Your task to perform on an android device: Search for "usb-c to usb-a" on newegg.com, select the first entry, add it to the cart, then select checkout. Image 0: 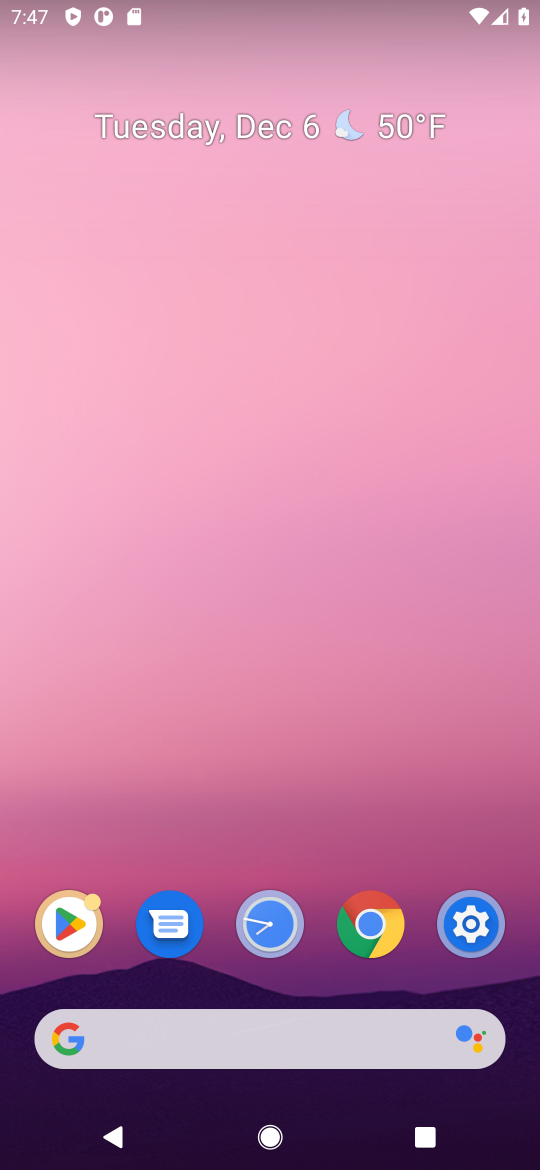
Step 0: click (253, 1060)
Your task to perform on an android device: Search for "usb-c to usb-a" on newegg.com, select the first entry, add it to the cart, then select checkout. Image 1: 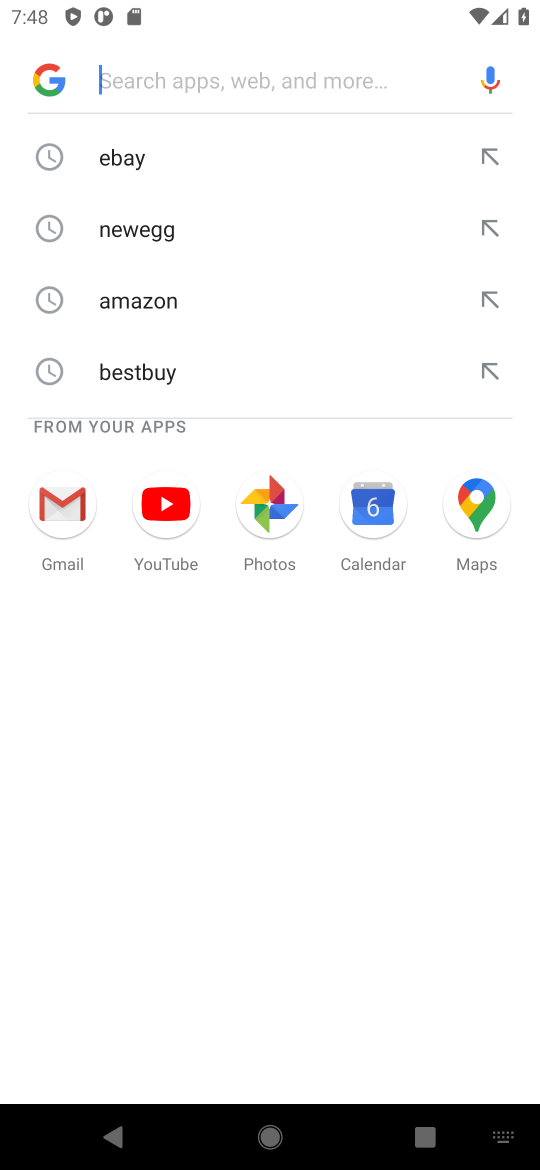
Step 1: type "usb-c t"
Your task to perform on an android device: Search for "usb-c to usb-a" on newegg.com, select the first entry, add it to the cart, then select checkout. Image 2: 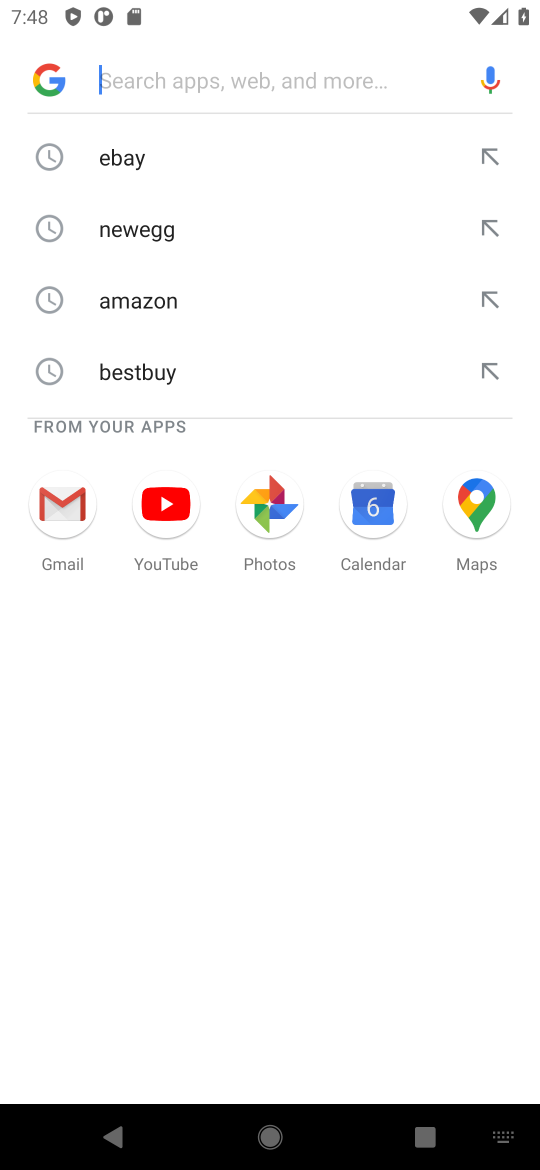
Step 2: click (109, 254)
Your task to perform on an android device: Search for "usb-c to usb-a" on newegg.com, select the first entry, add it to the cart, then select checkout. Image 3: 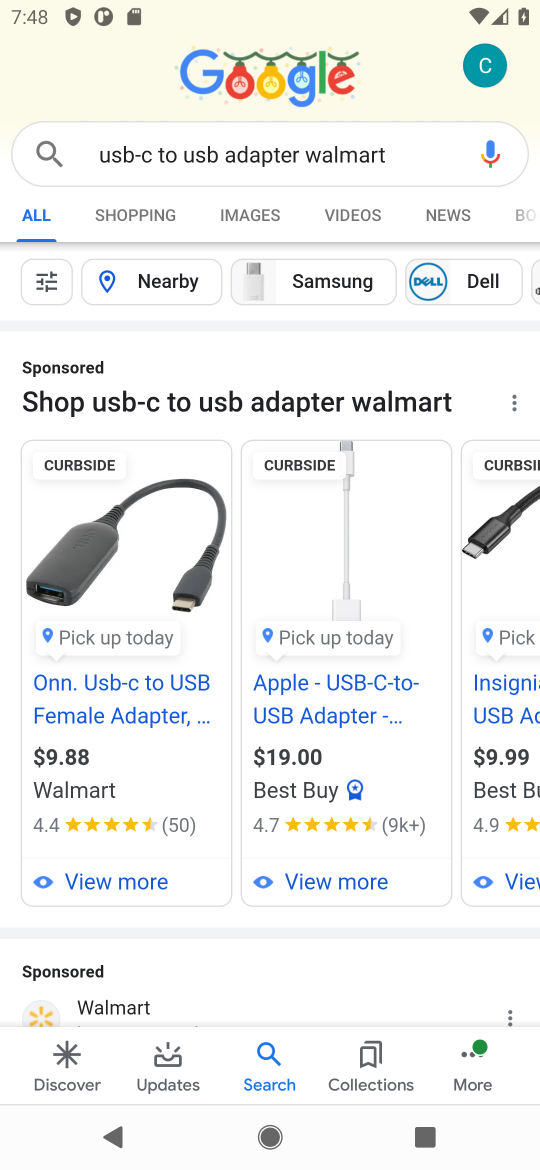
Step 3: click (89, 665)
Your task to perform on an android device: Search for "usb-c to usb-a" on newegg.com, select the first entry, add it to the cart, then select checkout. Image 4: 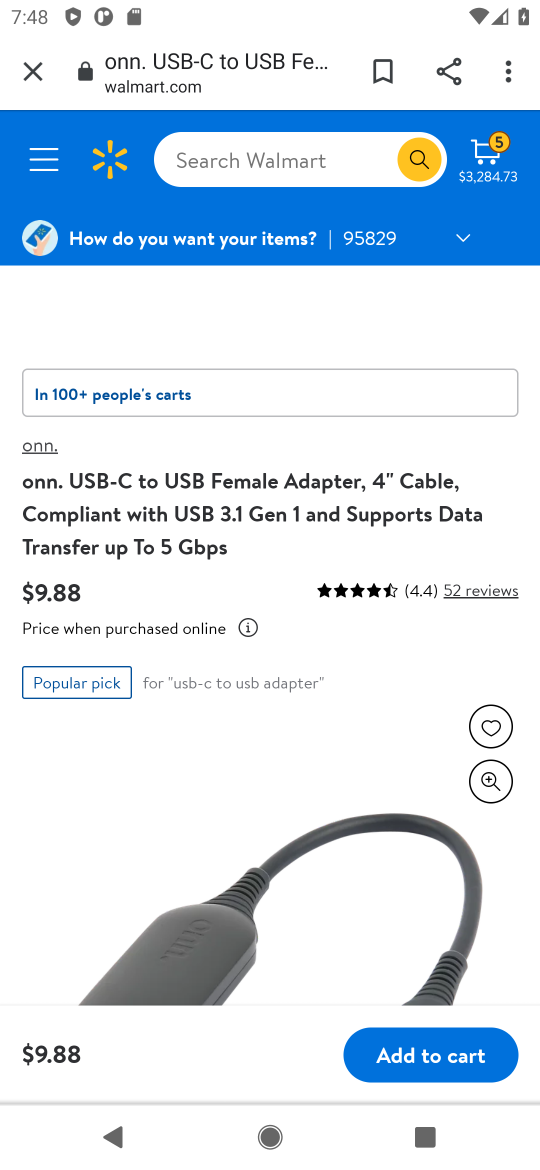
Step 4: click (405, 1039)
Your task to perform on an android device: Search for "usb-c to usb-a" on newegg.com, select the first entry, add it to the cart, then select checkout. Image 5: 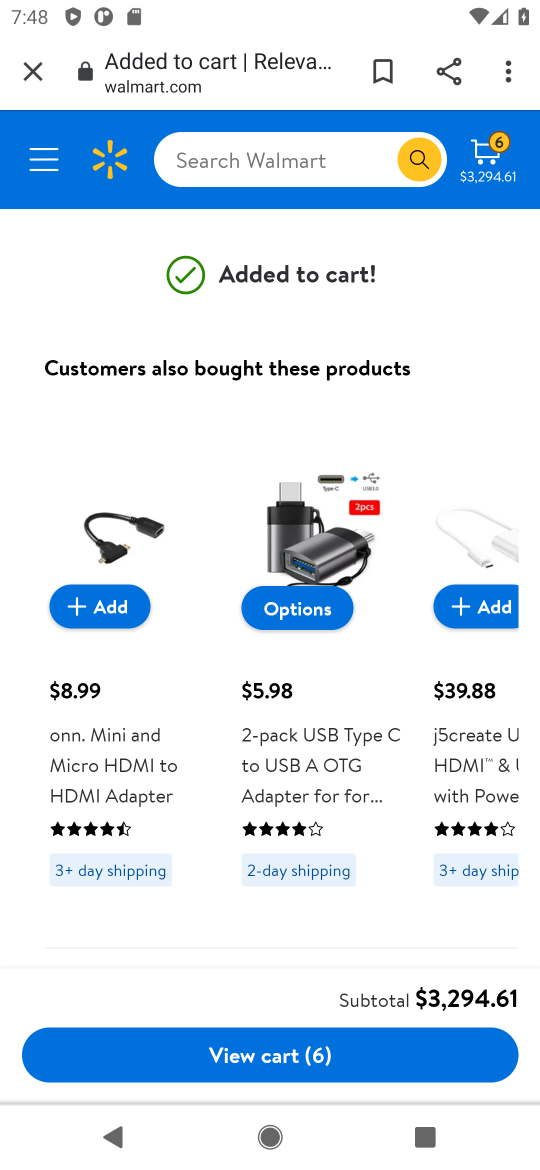
Step 5: task complete